Your task to perform on an android device: turn on javascript in the chrome app Image 0: 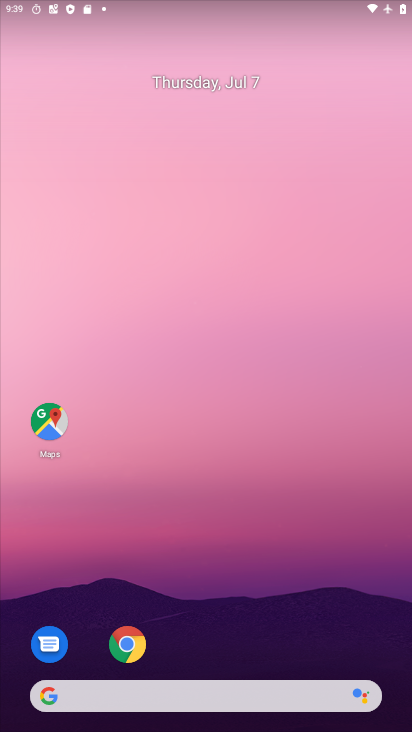
Step 0: click (128, 646)
Your task to perform on an android device: turn on javascript in the chrome app Image 1: 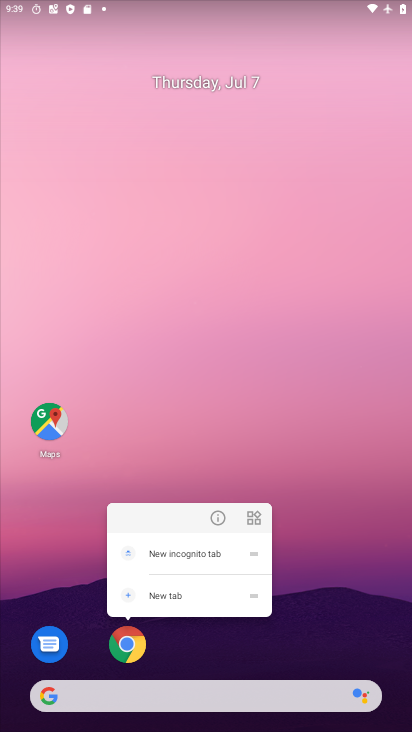
Step 1: click (127, 647)
Your task to perform on an android device: turn on javascript in the chrome app Image 2: 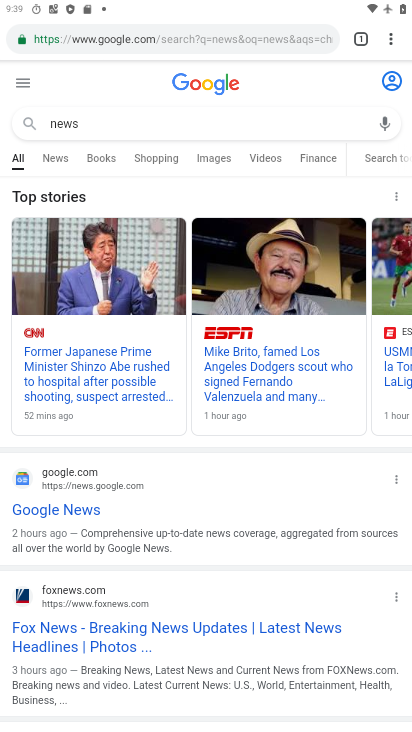
Step 2: drag from (394, 39) to (265, 439)
Your task to perform on an android device: turn on javascript in the chrome app Image 3: 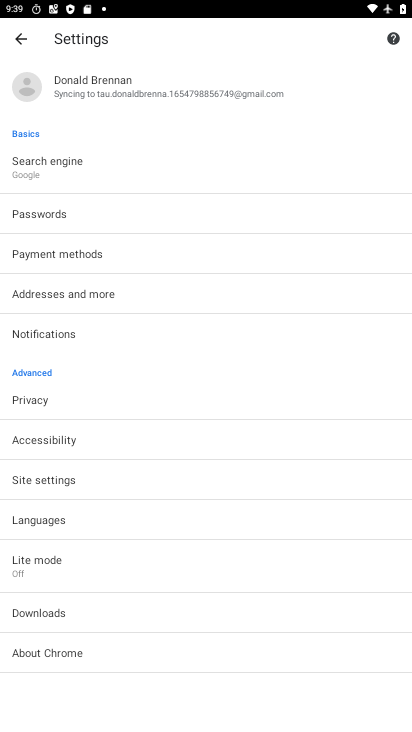
Step 3: click (58, 477)
Your task to perform on an android device: turn on javascript in the chrome app Image 4: 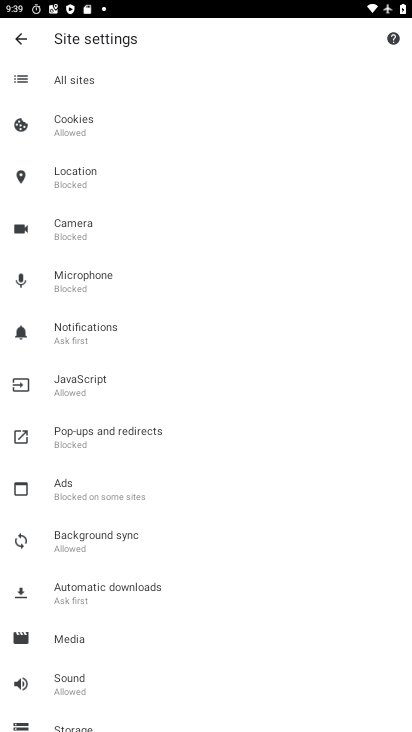
Step 4: click (100, 390)
Your task to perform on an android device: turn on javascript in the chrome app Image 5: 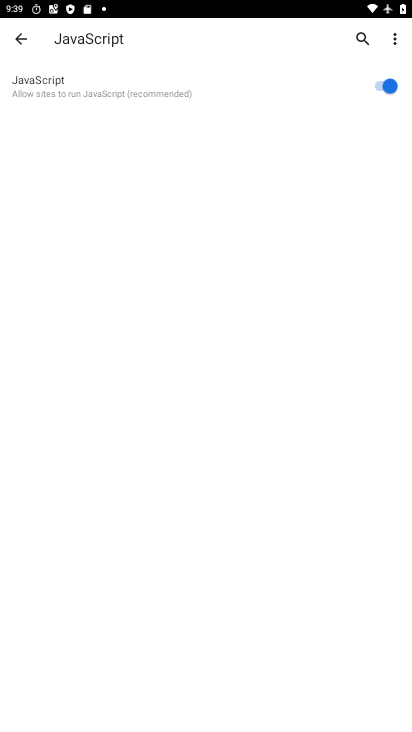
Step 5: task complete